Your task to perform on an android device: Go to Android settings Image 0: 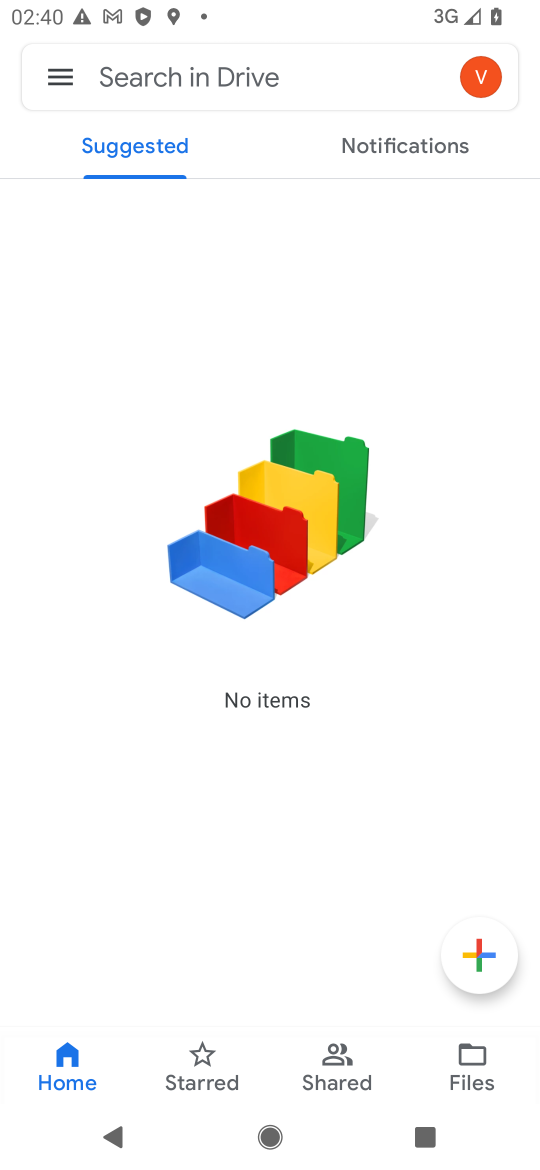
Step 0: press home button
Your task to perform on an android device: Go to Android settings Image 1: 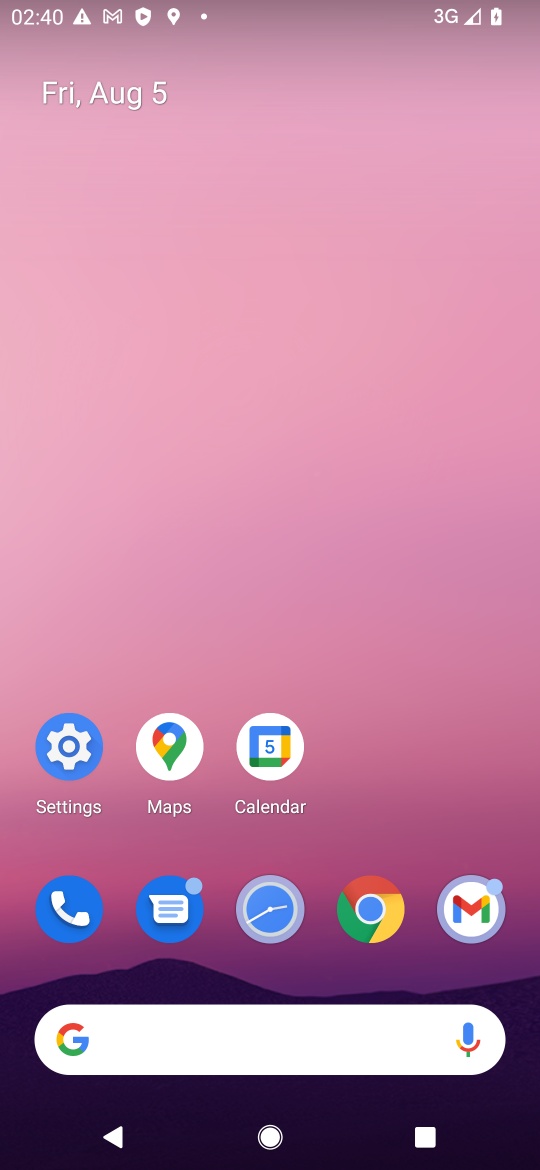
Step 1: click (70, 740)
Your task to perform on an android device: Go to Android settings Image 2: 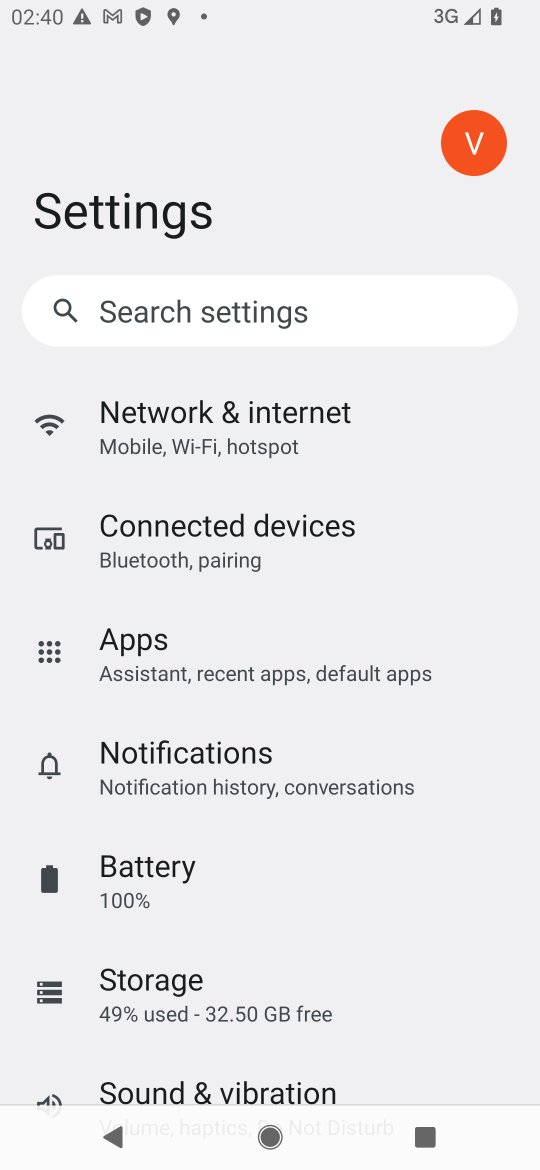
Step 2: task complete